Your task to perform on an android device: Open Chrome and go to the settings page Image 0: 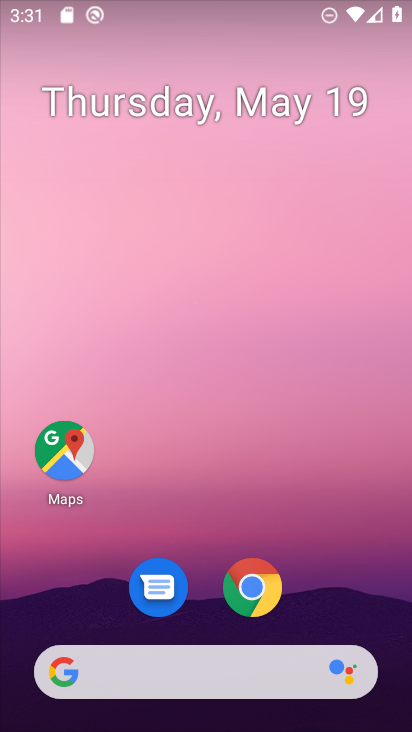
Step 0: drag from (344, 606) to (337, 187)
Your task to perform on an android device: Open Chrome and go to the settings page Image 1: 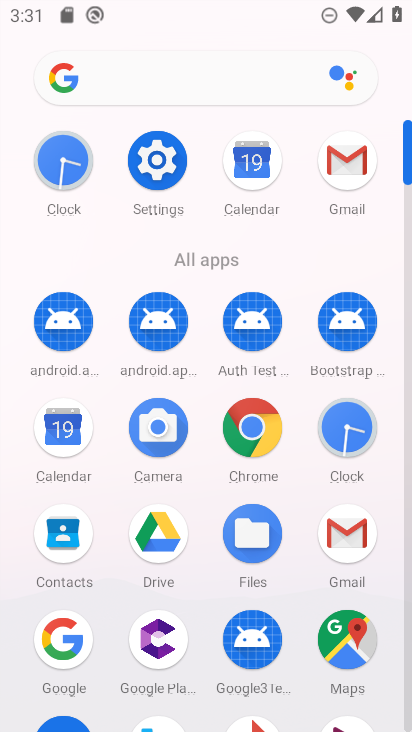
Step 1: click (255, 447)
Your task to perform on an android device: Open Chrome and go to the settings page Image 2: 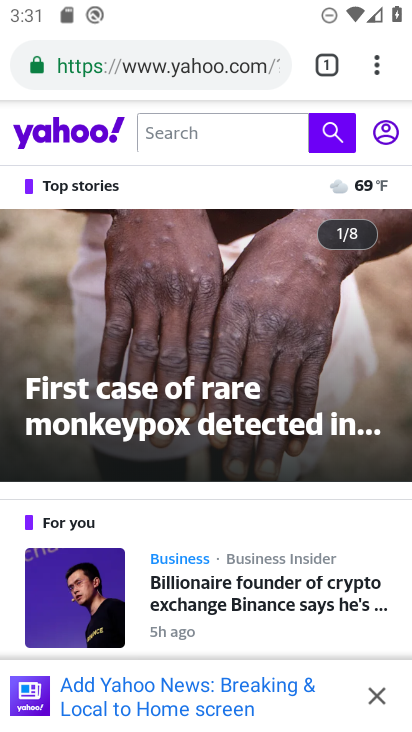
Step 2: click (373, 67)
Your task to perform on an android device: Open Chrome and go to the settings page Image 3: 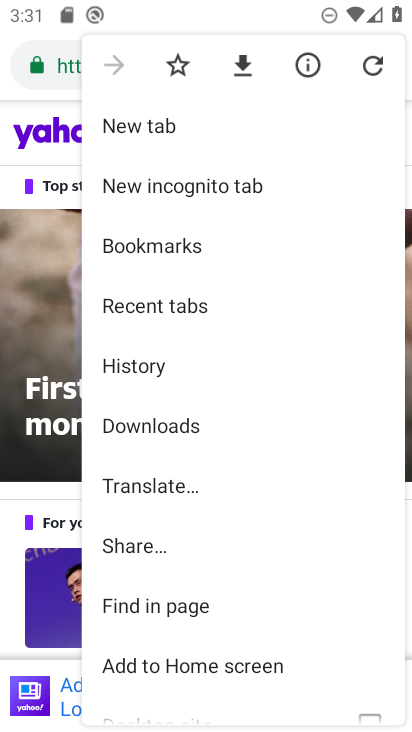
Step 3: drag from (275, 602) to (280, 434)
Your task to perform on an android device: Open Chrome and go to the settings page Image 4: 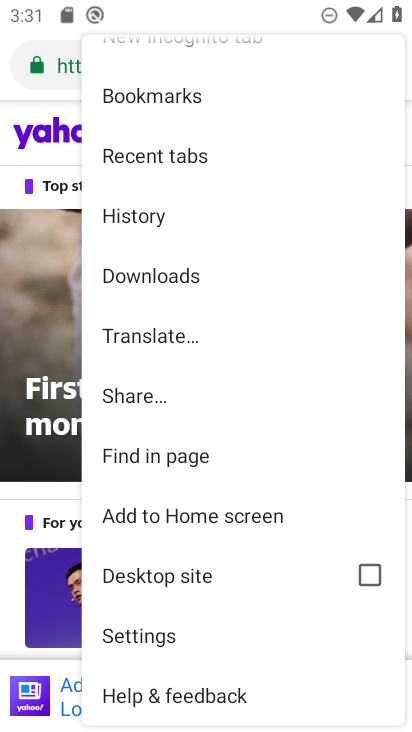
Step 4: drag from (281, 625) to (277, 504)
Your task to perform on an android device: Open Chrome and go to the settings page Image 5: 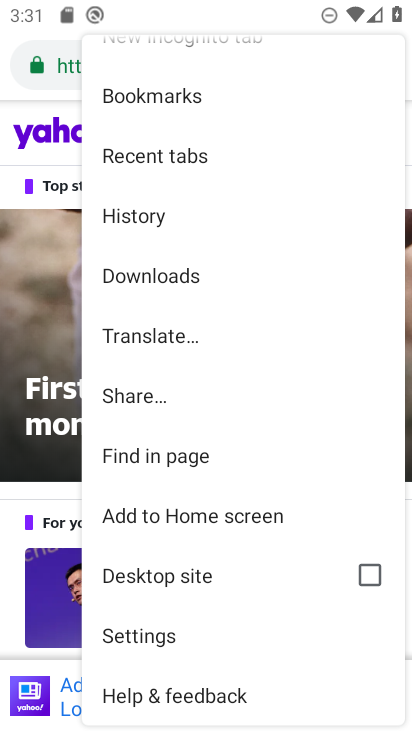
Step 5: click (167, 636)
Your task to perform on an android device: Open Chrome and go to the settings page Image 6: 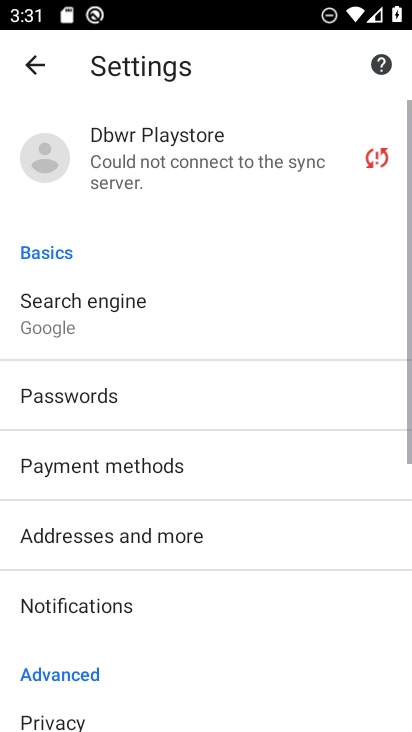
Step 6: task complete